Your task to perform on an android device: Search for the new Nintendo switch on Walmart. Image 0: 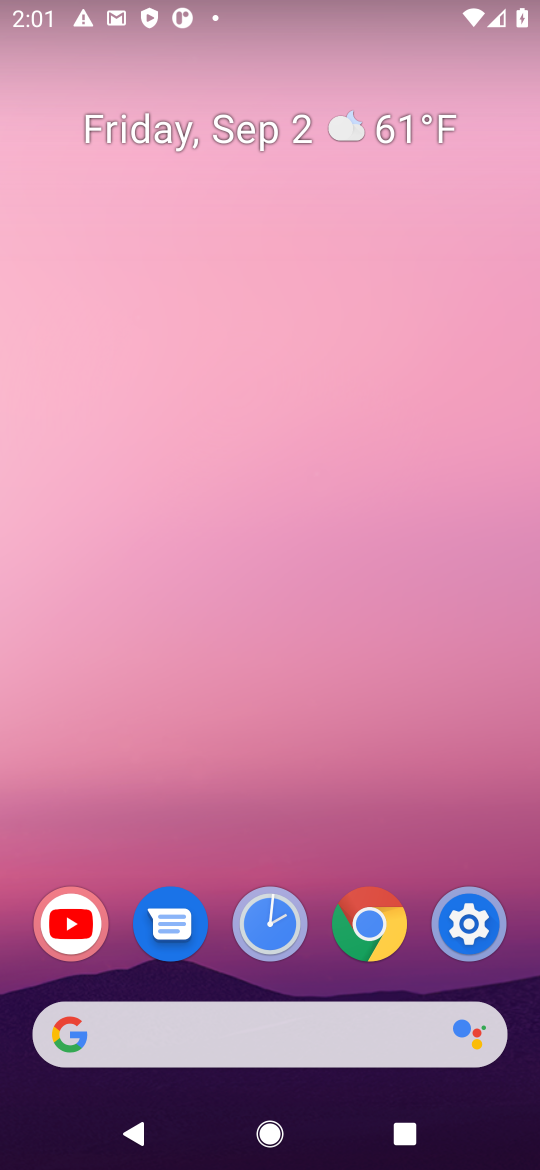
Step 0: press home button
Your task to perform on an android device: Search for the new Nintendo switch on Walmart. Image 1: 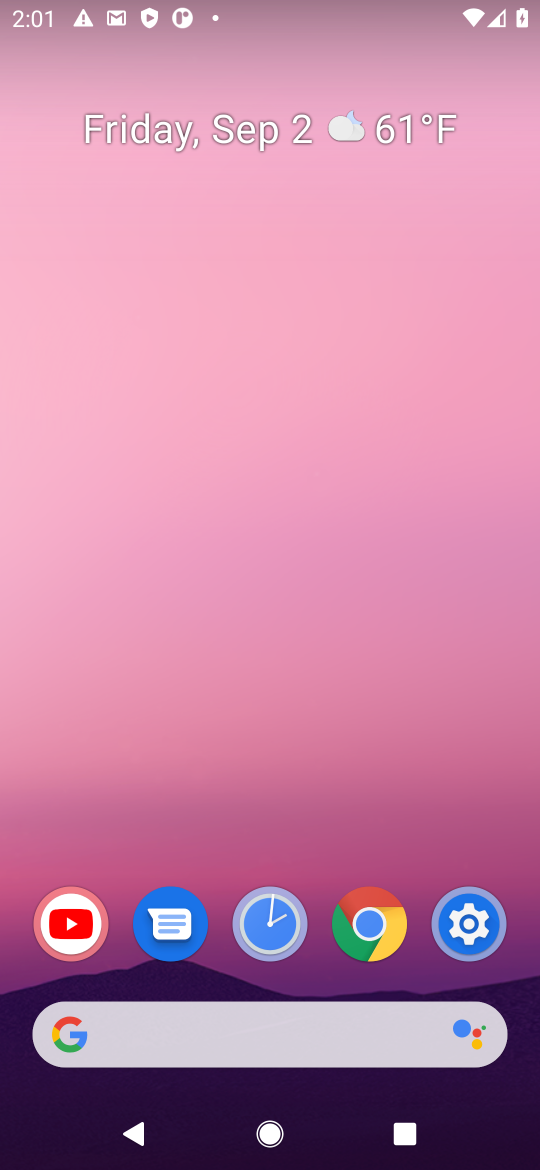
Step 1: click (397, 1023)
Your task to perform on an android device: Search for the new Nintendo switch on Walmart. Image 2: 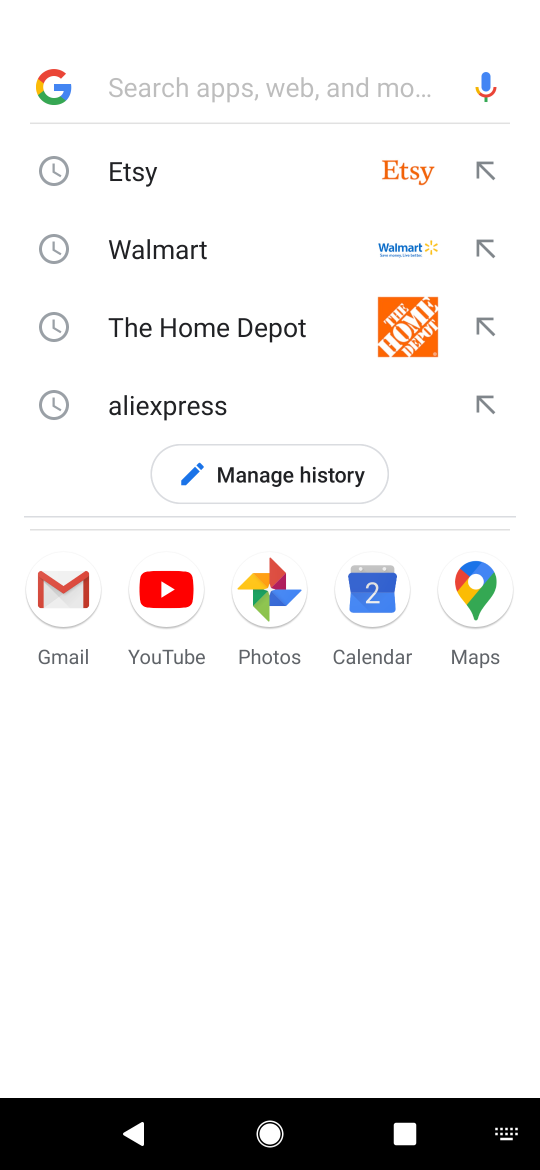
Step 2: press enter
Your task to perform on an android device: Search for the new Nintendo switch on Walmart. Image 3: 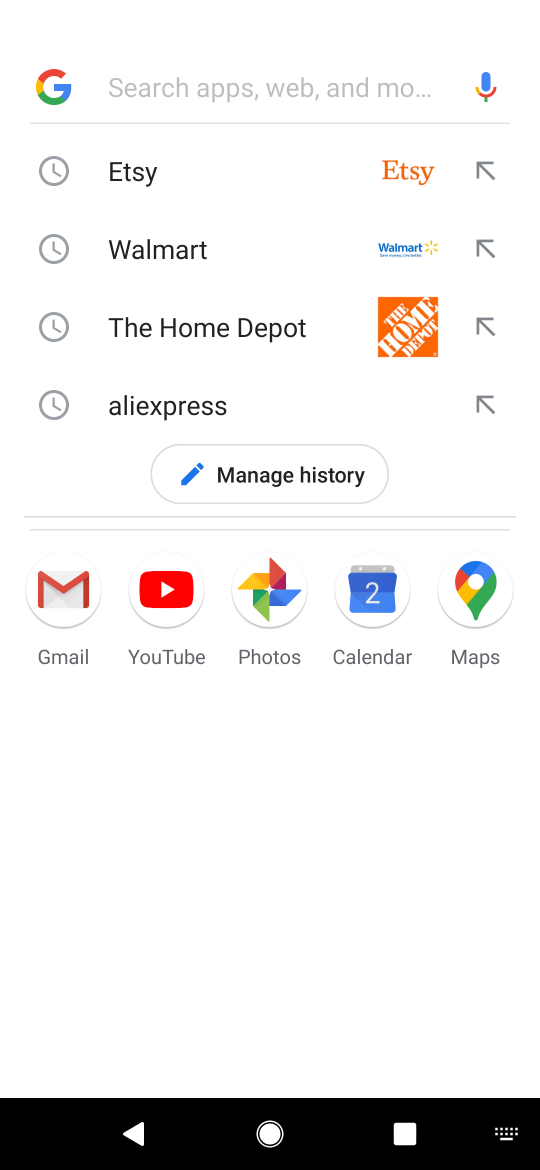
Step 3: type "walmart"
Your task to perform on an android device: Search for the new Nintendo switch on Walmart. Image 4: 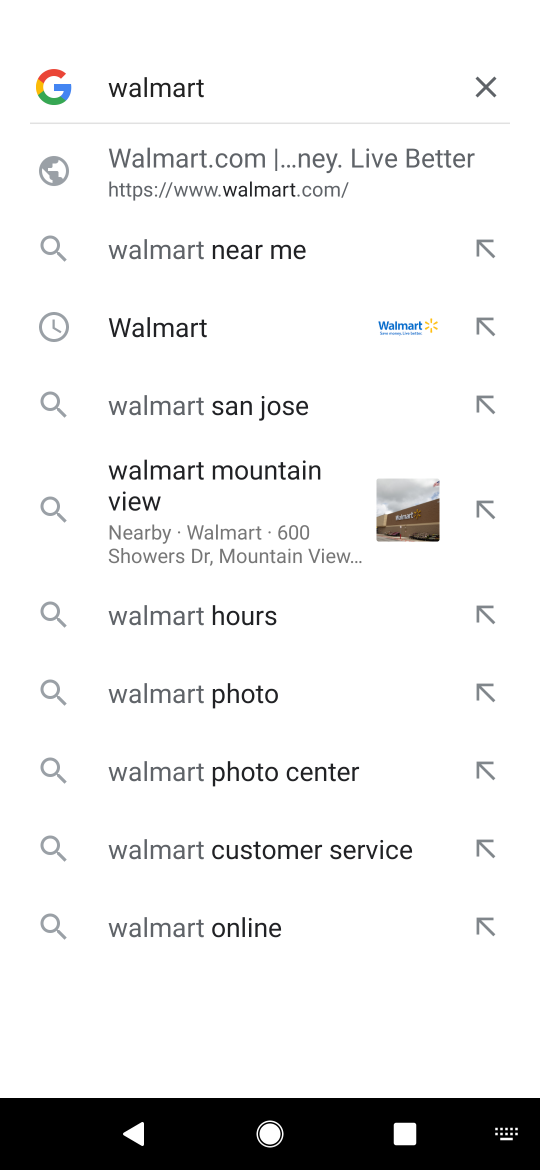
Step 4: click (195, 323)
Your task to perform on an android device: Search for the new Nintendo switch on Walmart. Image 5: 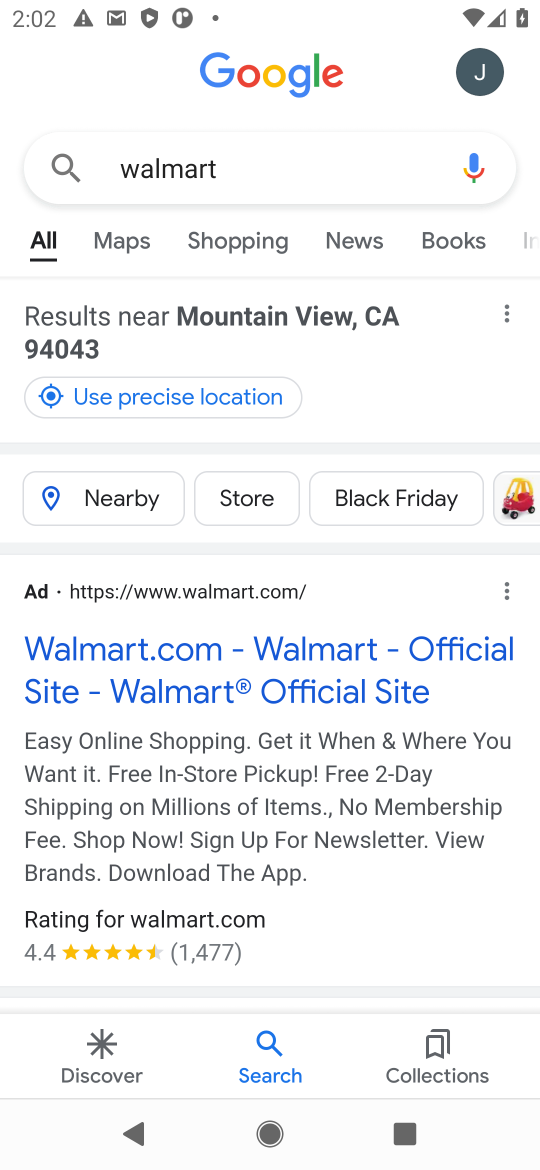
Step 5: click (296, 673)
Your task to perform on an android device: Search for the new Nintendo switch on Walmart. Image 6: 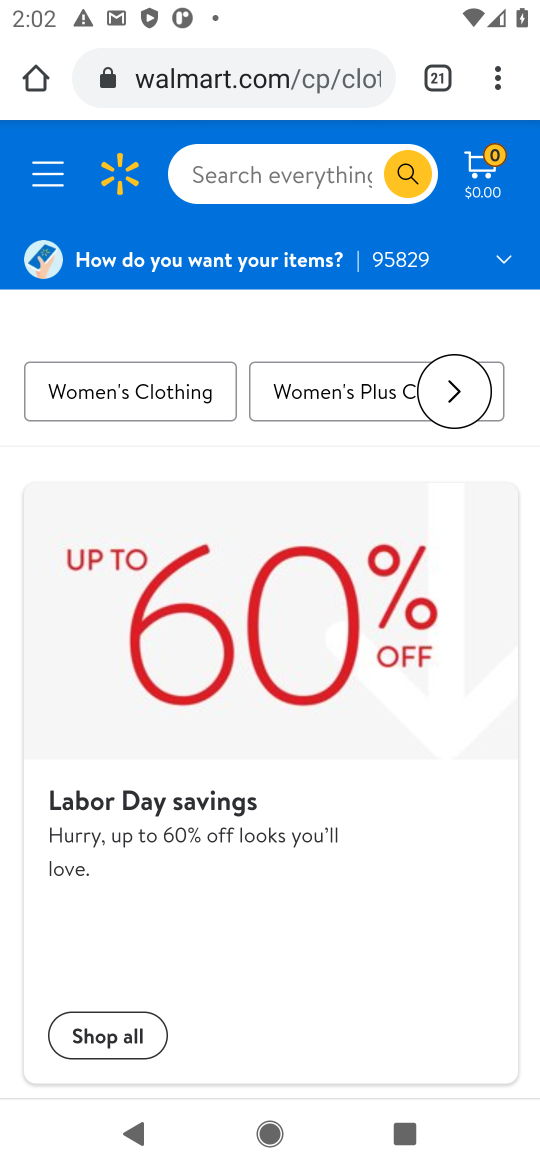
Step 6: click (268, 176)
Your task to perform on an android device: Search for the new Nintendo switch on Walmart. Image 7: 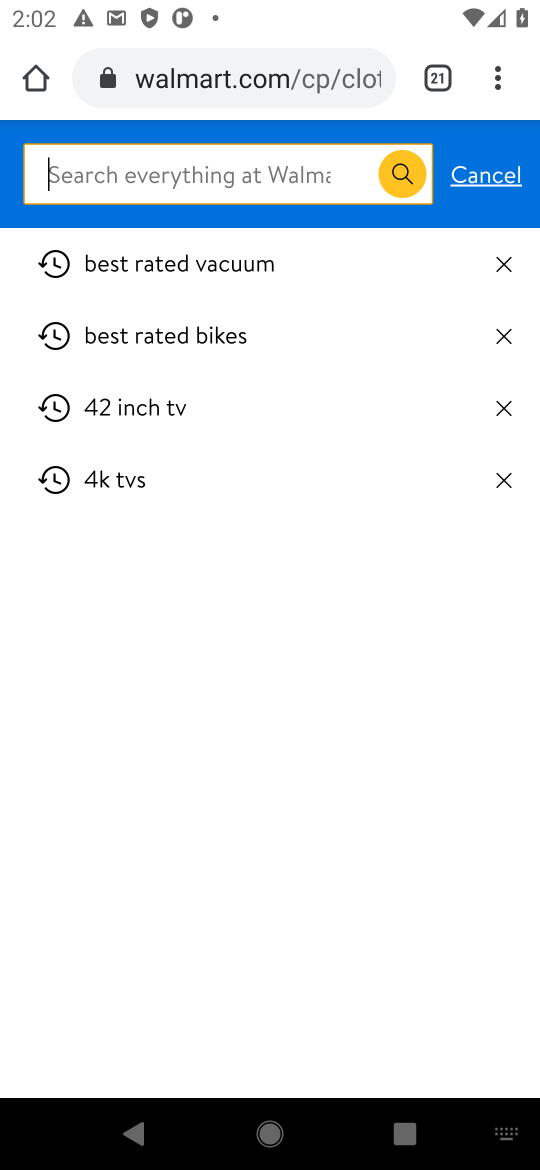
Step 7: type "nintendo switch"
Your task to perform on an android device: Search for the new Nintendo switch on Walmart. Image 8: 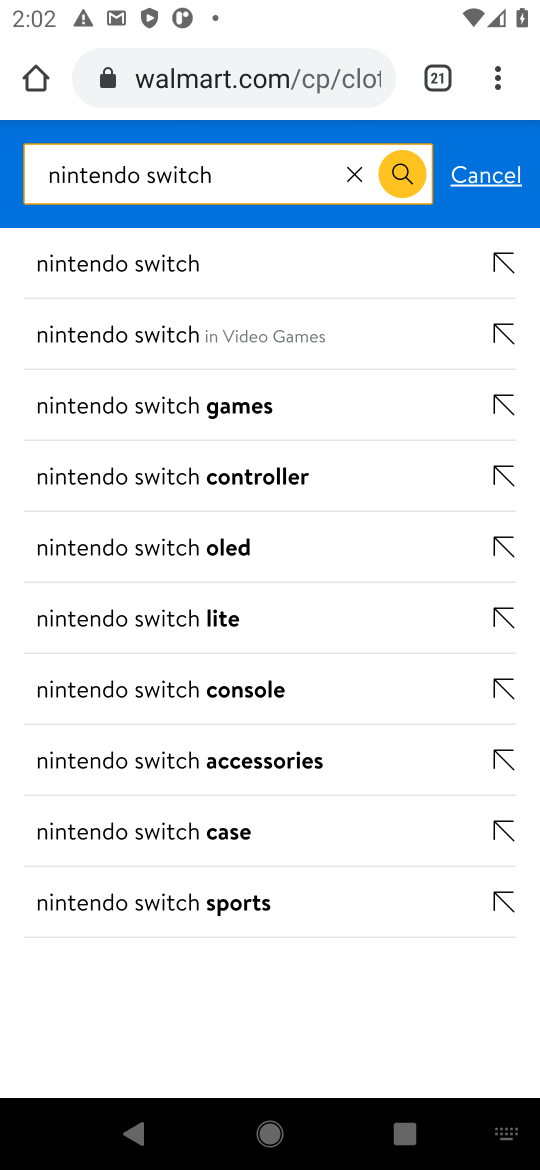
Step 8: click (229, 258)
Your task to perform on an android device: Search for the new Nintendo switch on Walmart. Image 9: 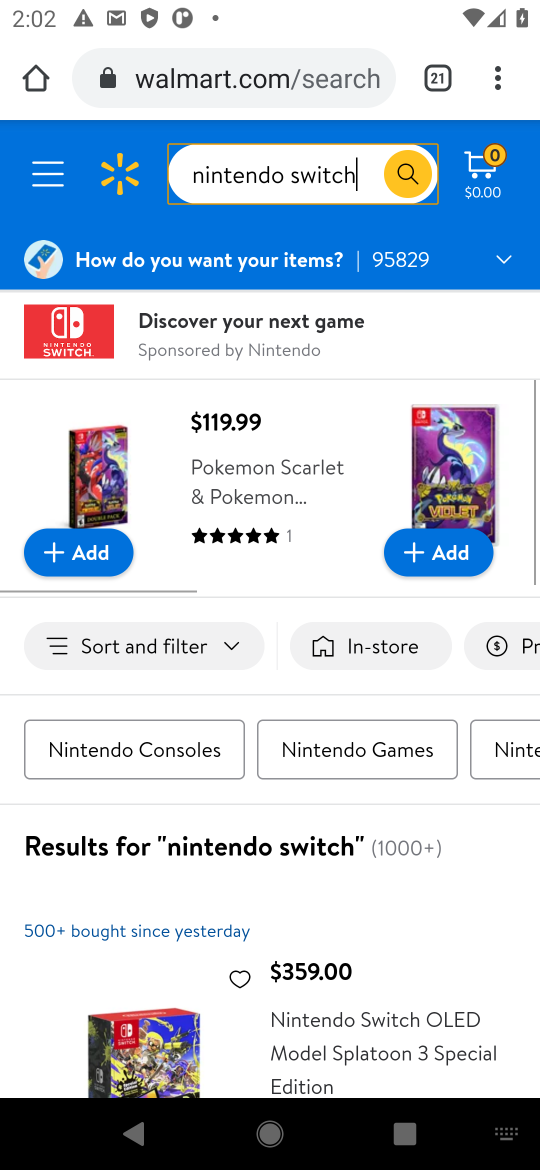
Step 9: task complete